Your task to perform on an android device: turn off notifications settings in the gmail app Image 0: 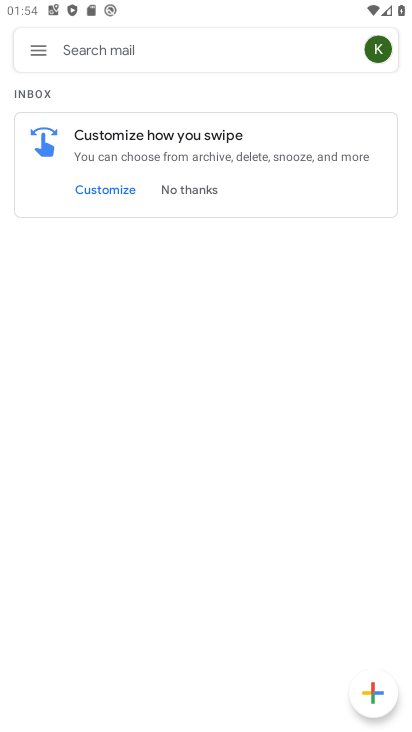
Step 0: press home button
Your task to perform on an android device: turn off notifications settings in the gmail app Image 1: 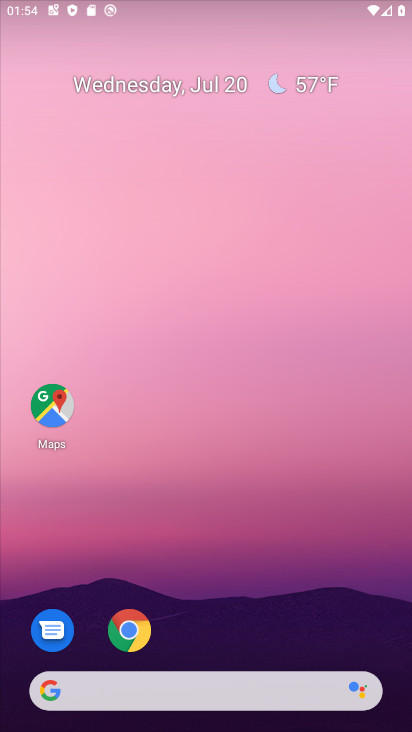
Step 1: drag from (257, 560) to (237, 10)
Your task to perform on an android device: turn off notifications settings in the gmail app Image 2: 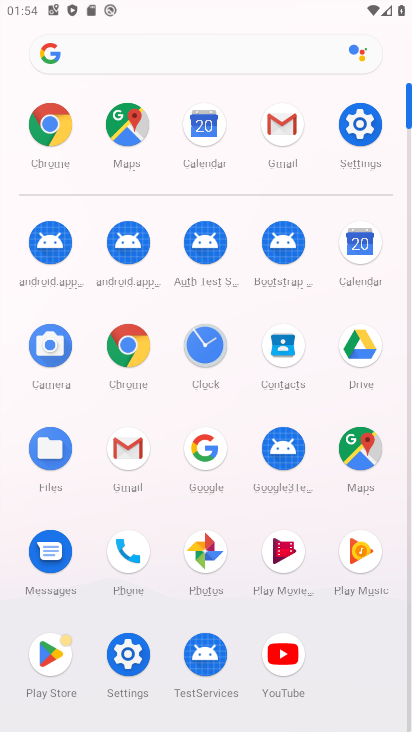
Step 2: click (288, 123)
Your task to perform on an android device: turn off notifications settings in the gmail app Image 3: 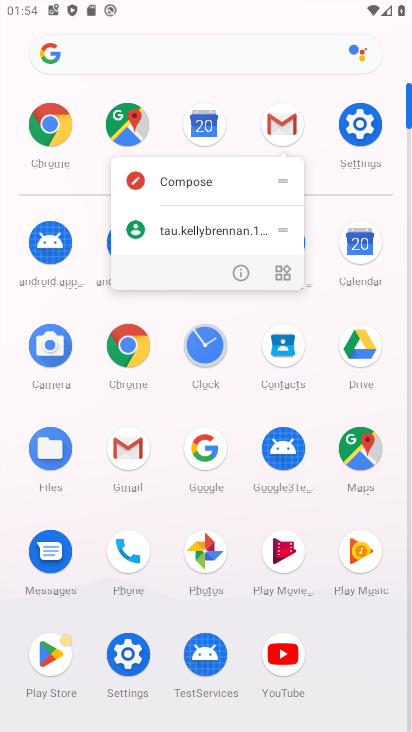
Step 3: click (293, 125)
Your task to perform on an android device: turn off notifications settings in the gmail app Image 4: 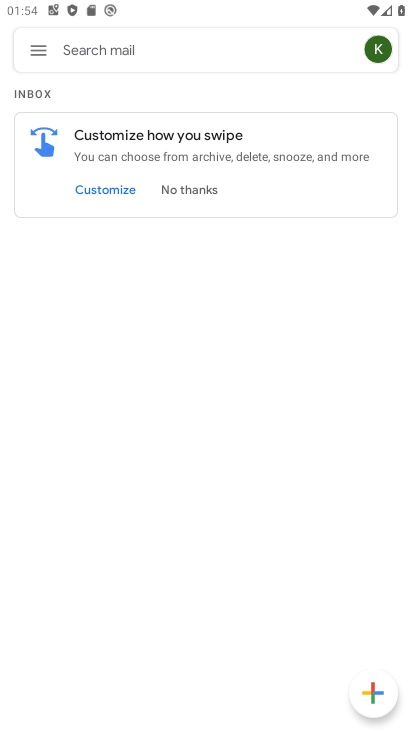
Step 4: click (42, 41)
Your task to perform on an android device: turn off notifications settings in the gmail app Image 5: 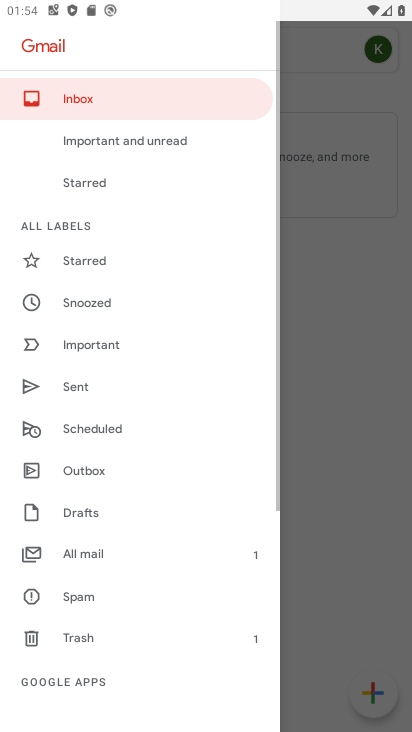
Step 5: drag from (76, 656) to (171, 210)
Your task to perform on an android device: turn off notifications settings in the gmail app Image 6: 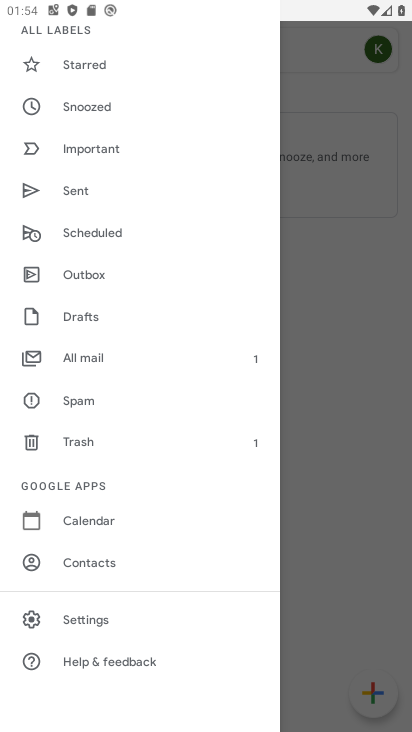
Step 6: click (94, 623)
Your task to perform on an android device: turn off notifications settings in the gmail app Image 7: 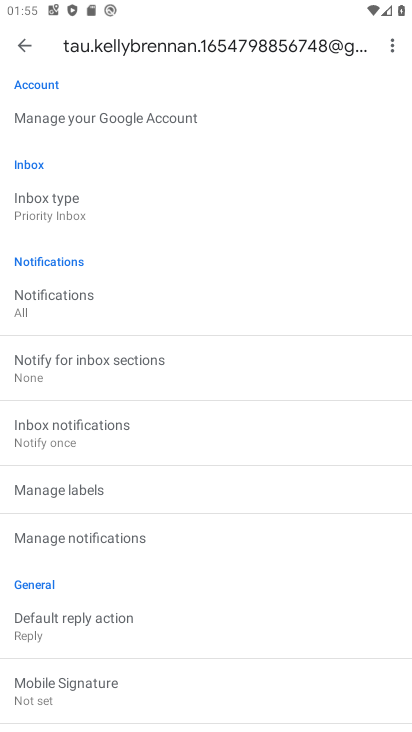
Step 7: click (106, 540)
Your task to perform on an android device: turn off notifications settings in the gmail app Image 8: 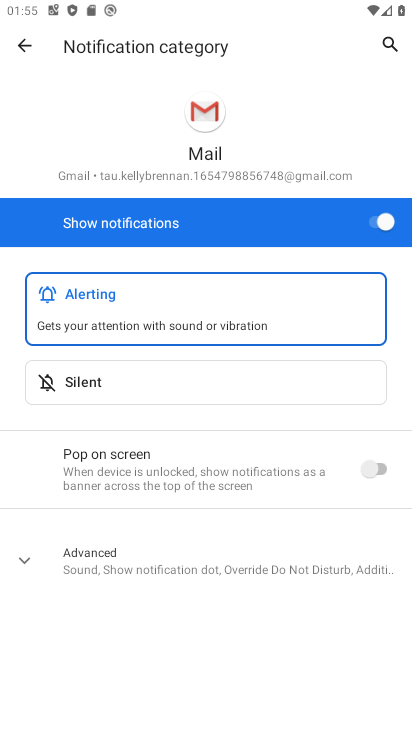
Step 8: click (369, 224)
Your task to perform on an android device: turn off notifications settings in the gmail app Image 9: 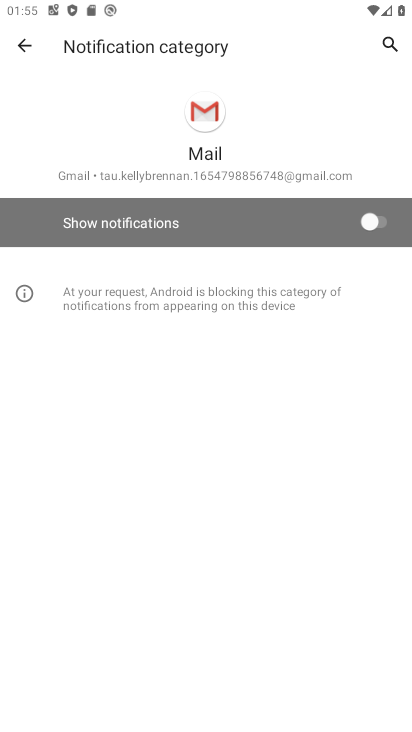
Step 9: task complete